Your task to perform on an android device: turn smart compose on in the gmail app Image 0: 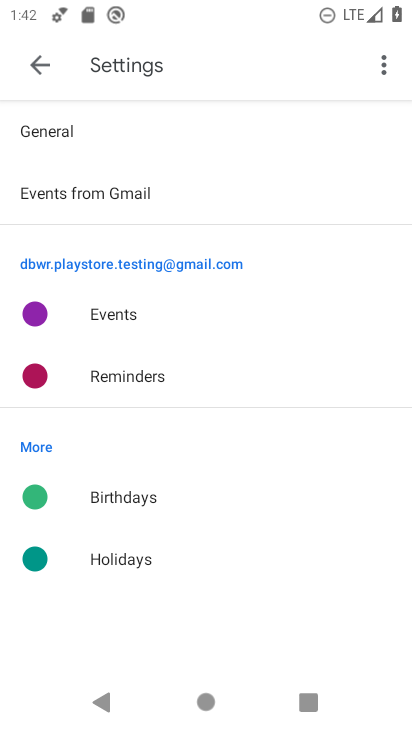
Step 0: press home button
Your task to perform on an android device: turn smart compose on in the gmail app Image 1: 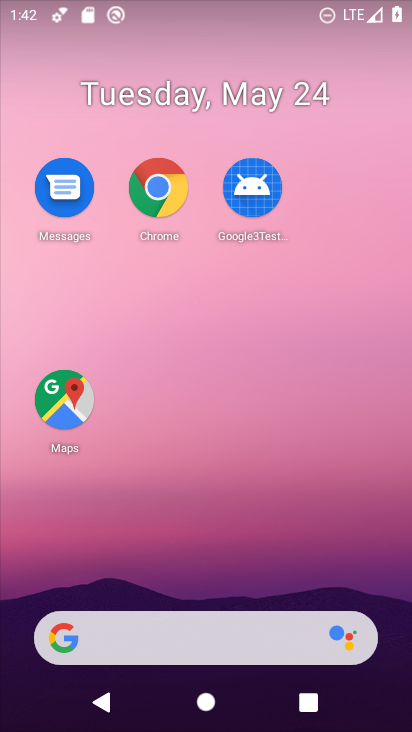
Step 1: drag from (207, 547) to (152, 8)
Your task to perform on an android device: turn smart compose on in the gmail app Image 2: 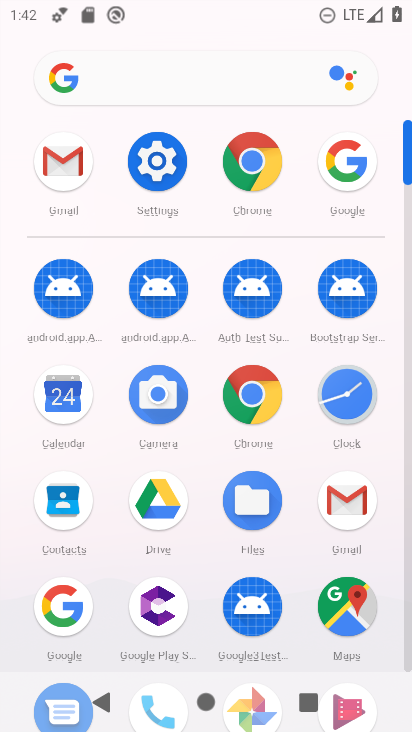
Step 2: click (72, 215)
Your task to perform on an android device: turn smart compose on in the gmail app Image 3: 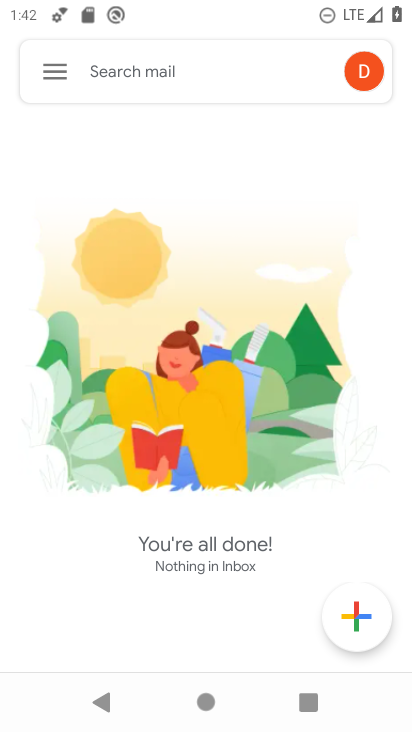
Step 3: click (67, 78)
Your task to perform on an android device: turn smart compose on in the gmail app Image 4: 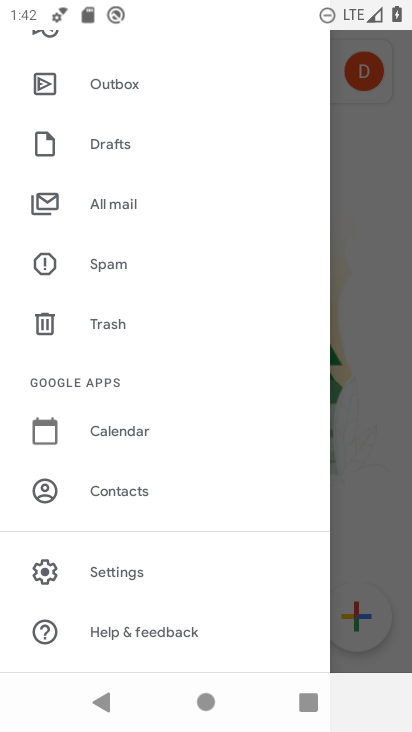
Step 4: click (121, 573)
Your task to perform on an android device: turn smart compose on in the gmail app Image 5: 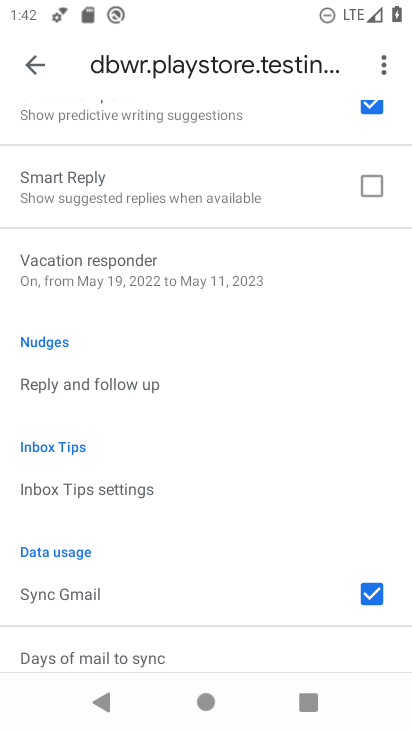
Step 5: task complete